Your task to perform on an android device: set an alarm Image 0: 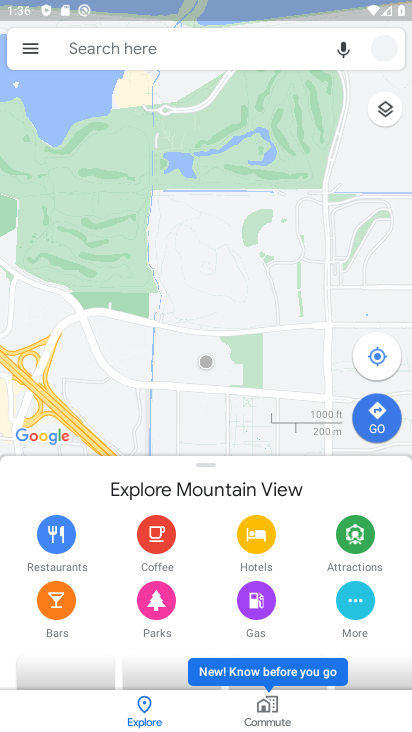
Step 0: press home button
Your task to perform on an android device: set an alarm Image 1: 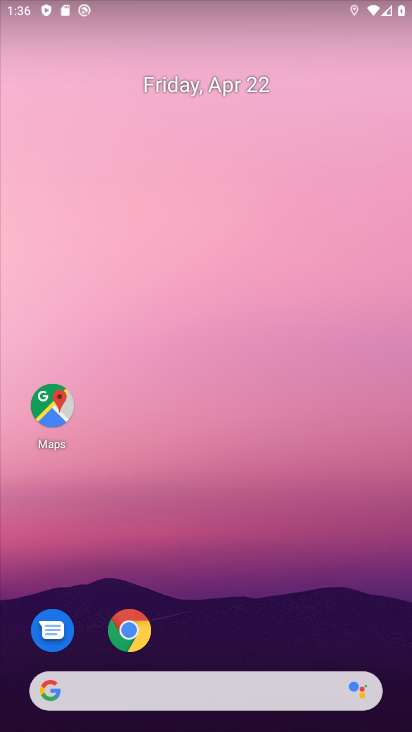
Step 1: drag from (366, 618) to (352, 134)
Your task to perform on an android device: set an alarm Image 2: 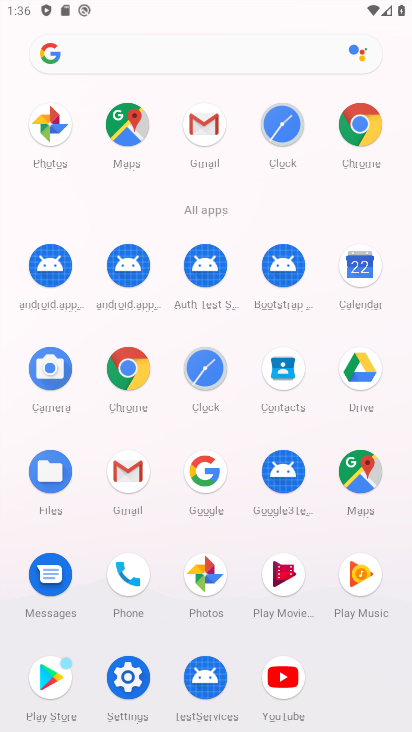
Step 2: click (216, 377)
Your task to perform on an android device: set an alarm Image 3: 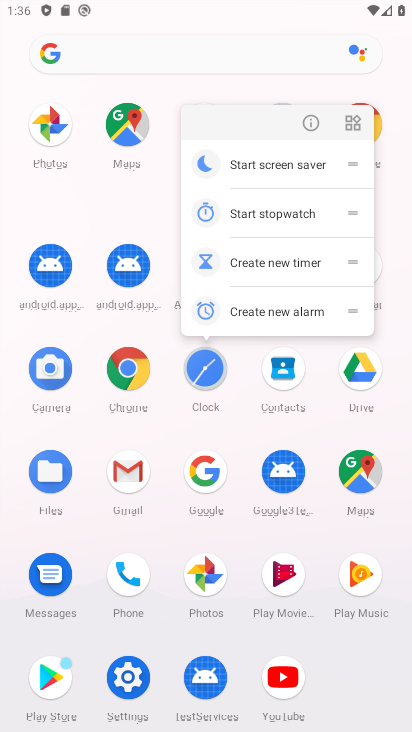
Step 3: click (214, 390)
Your task to perform on an android device: set an alarm Image 4: 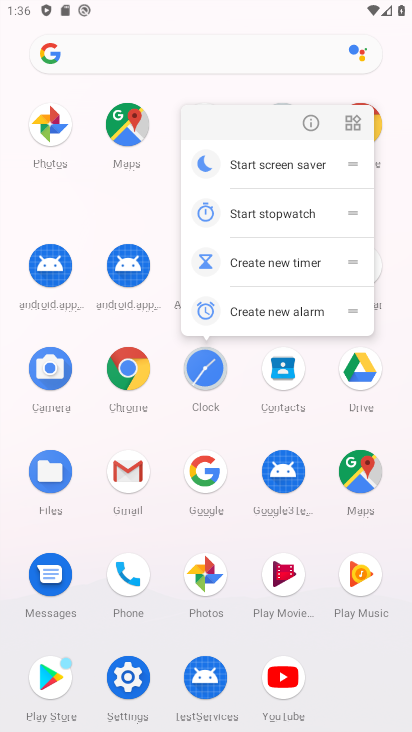
Step 4: click (214, 390)
Your task to perform on an android device: set an alarm Image 5: 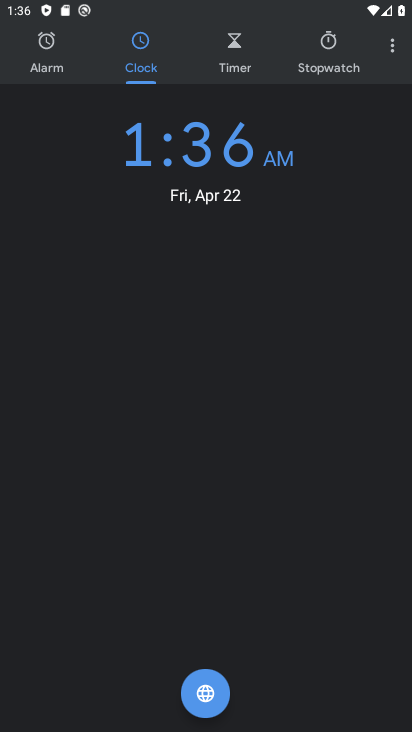
Step 5: click (39, 41)
Your task to perform on an android device: set an alarm Image 6: 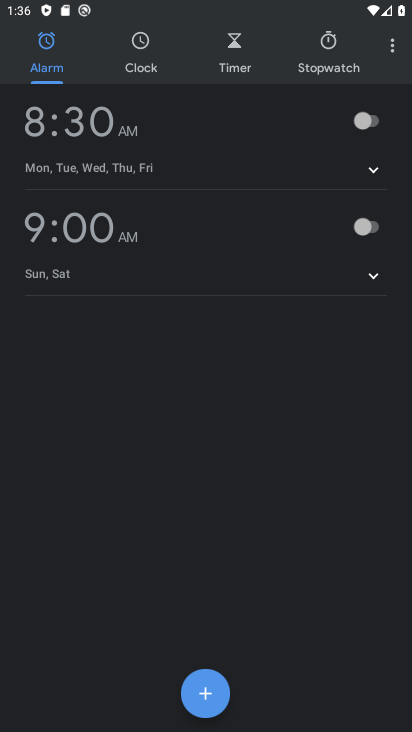
Step 6: click (194, 688)
Your task to perform on an android device: set an alarm Image 7: 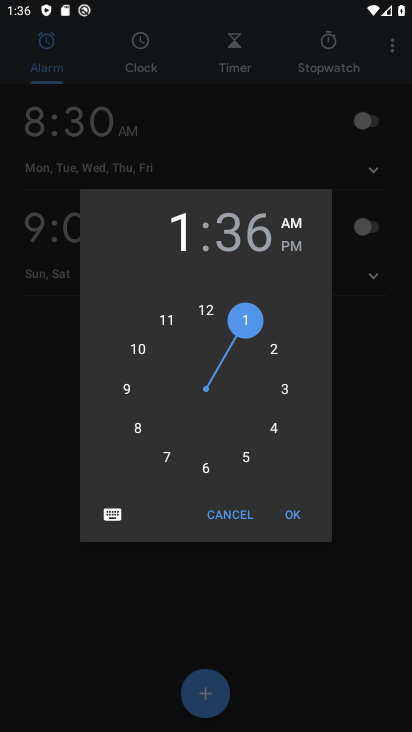
Step 7: click (295, 520)
Your task to perform on an android device: set an alarm Image 8: 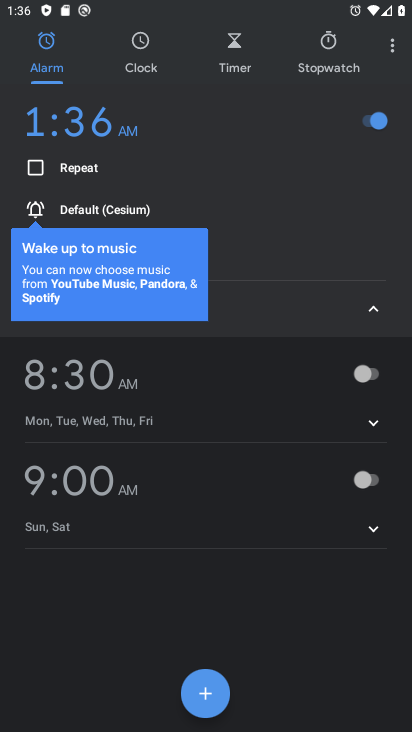
Step 8: task complete